Your task to perform on an android device: change the clock display to show seconds Image 0: 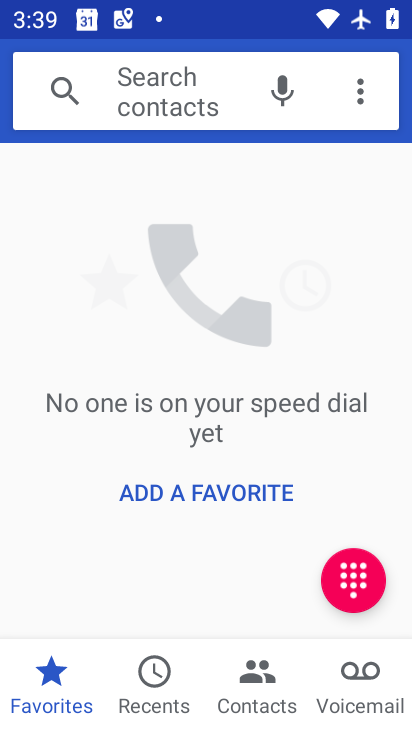
Step 0: press home button
Your task to perform on an android device: change the clock display to show seconds Image 1: 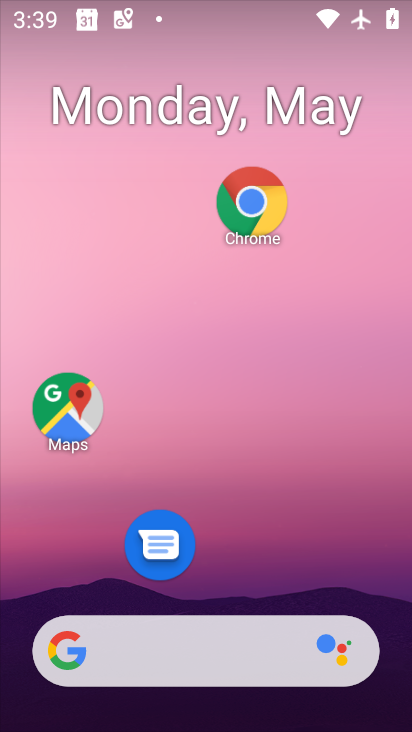
Step 1: drag from (235, 575) to (238, 219)
Your task to perform on an android device: change the clock display to show seconds Image 2: 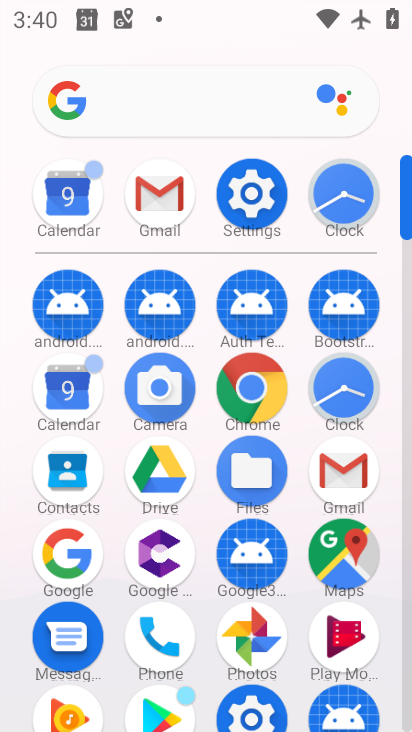
Step 2: click (333, 206)
Your task to perform on an android device: change the clock display to show seconds Image 3: 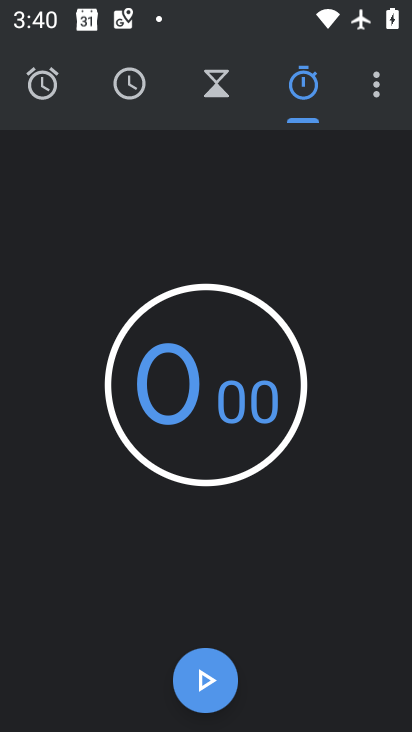
Step 3: click (374, 89)
Your task to perform on an android device: change the clock display to show seconds Image 4: 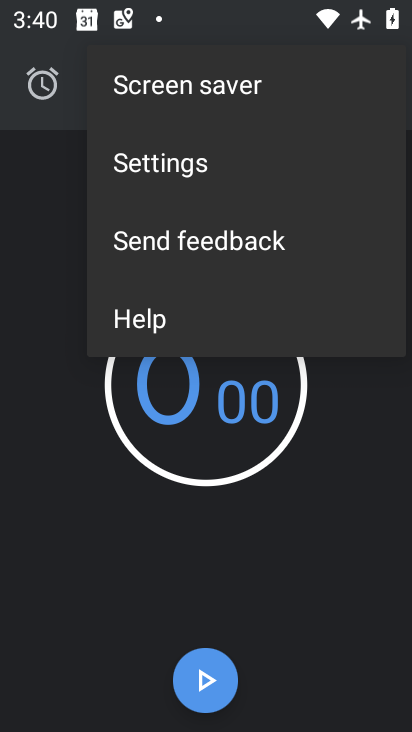
Step 4: click (263, 157)
Your task to perform on an android device: change the clock display to show seconds Image 5: 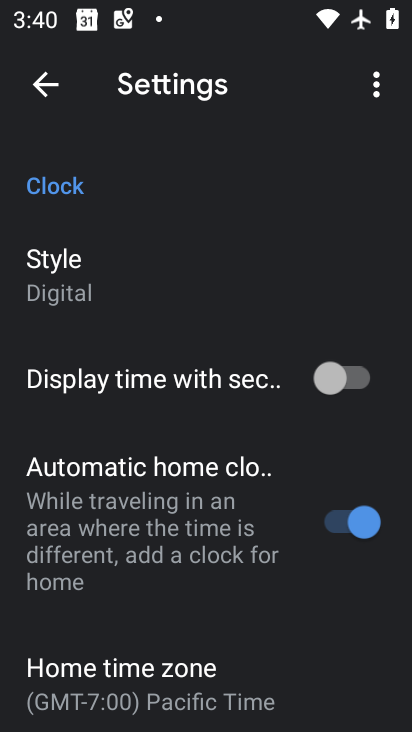
Step 5: click (358, 384)
Your task to perform on an android device: change the clock display to show seconds Image 6: 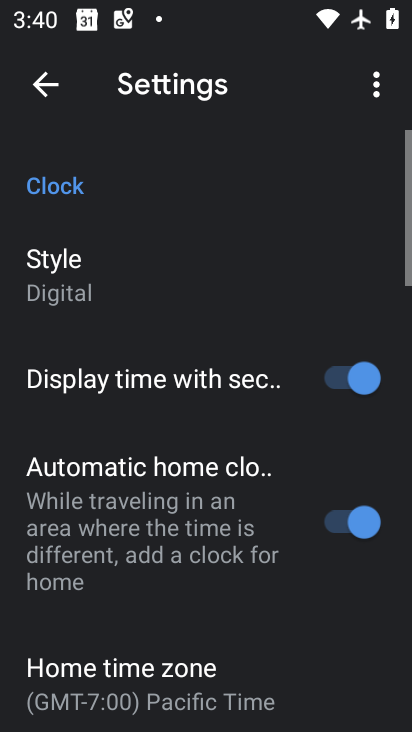
Step 6: task complete